Your task to perform on an android device: Go to privacy settings Image 0: 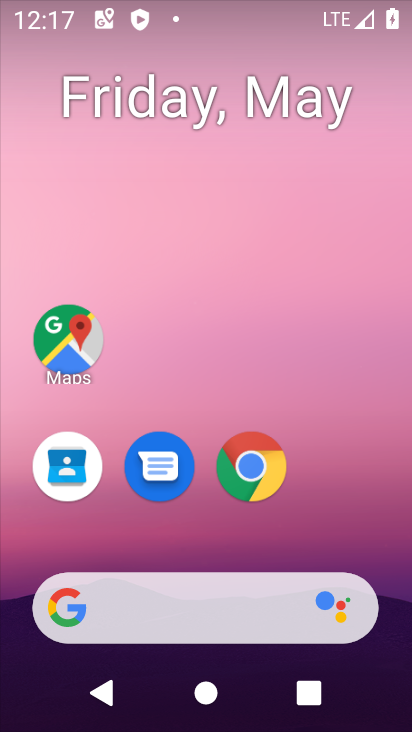
Step 0: drag from (250, 547) to (287, 0)
Your task to perform on an android device: Go to privacy settings Image 1: 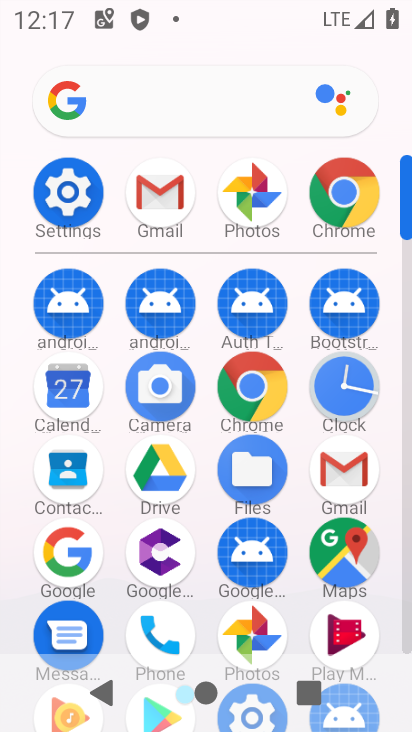
Step 1: click (67, 202)
Your task to perform on an android device: Go to privacy settings Image 2: 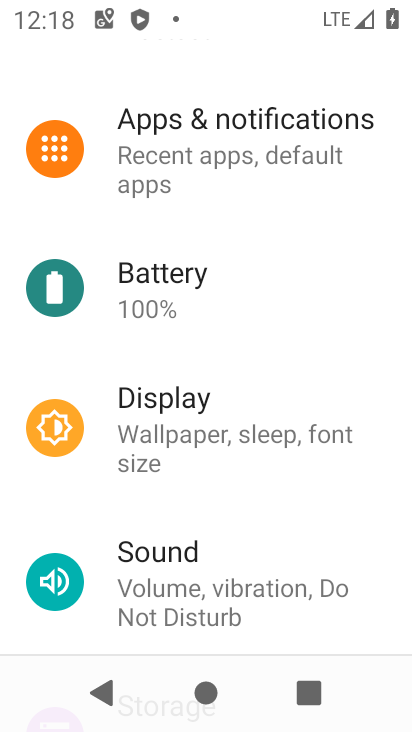
Step 2: drag from (223, 531) to (254, 215)
Your task to perform on an android device: Go to privacy settings Image 3: 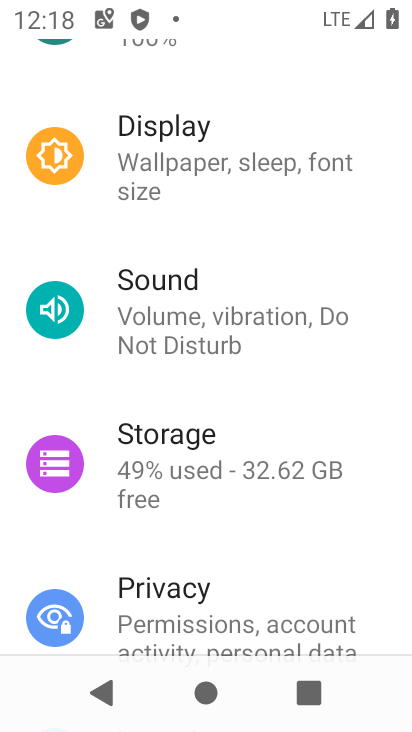
Step 3: click (192, 606)
Your task to perform on an android device: Go to privacy settings Image 4: 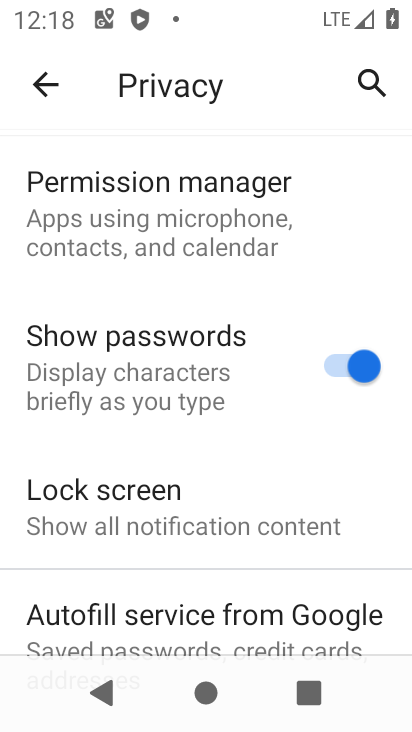
Step 4: task complete